Your task to perform on an android device: Clear the cart on amazon. Add bose quietcomfort 35 to the cart on amazon Image 0: 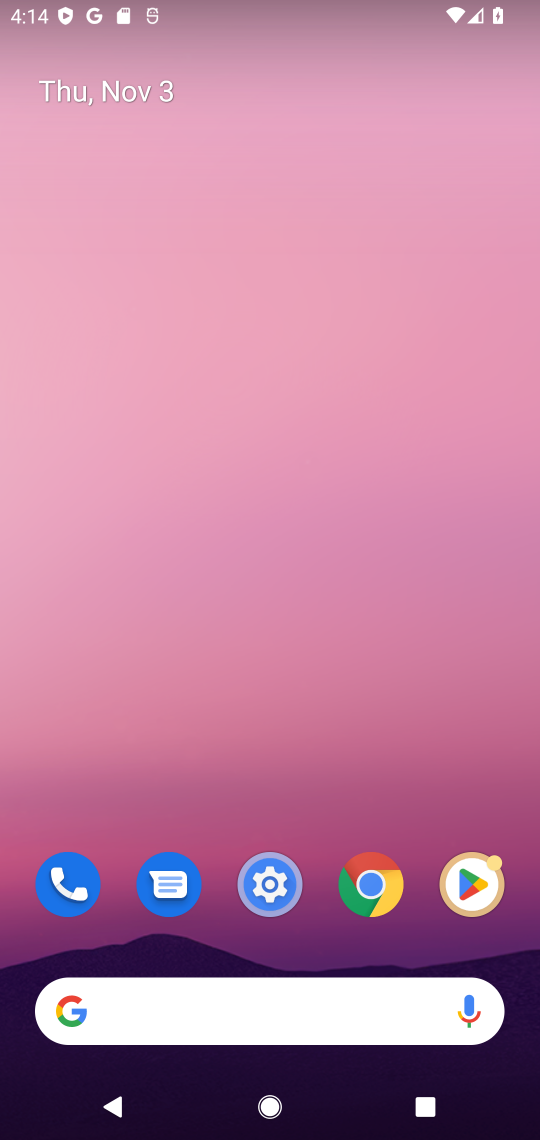
Step 0: press home button
Your task to perform on an android device: Clear the cart on amazon. Add bose quietcomfort 35 to the cart on amazon Image 1: 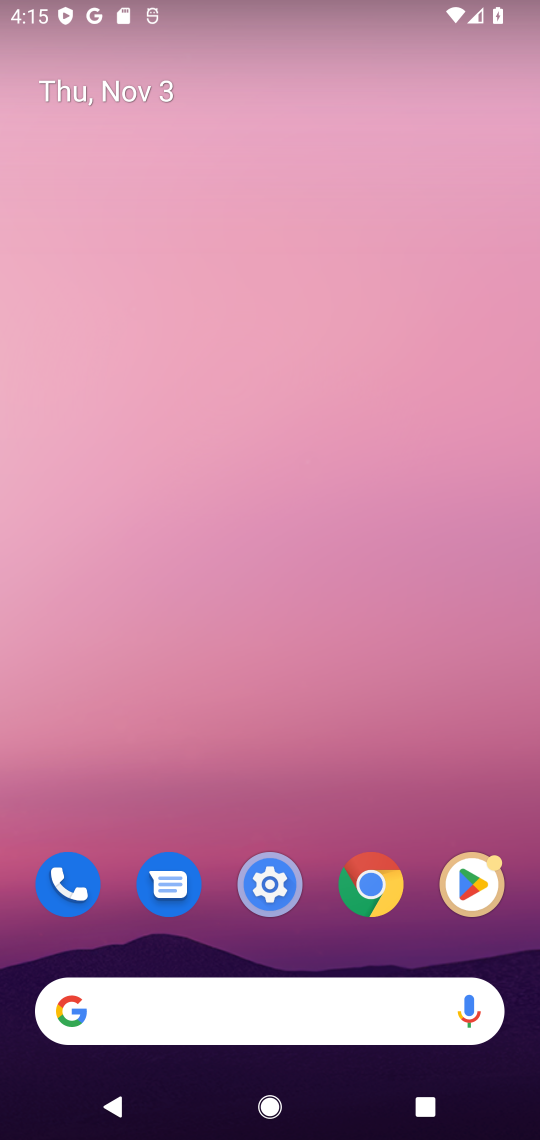
Step 1: click (148, 1008)
Your task to perform on an android device: Clear the cart on amazon. Add bose quietcomfort 35 to the cart on amazon Image 2: 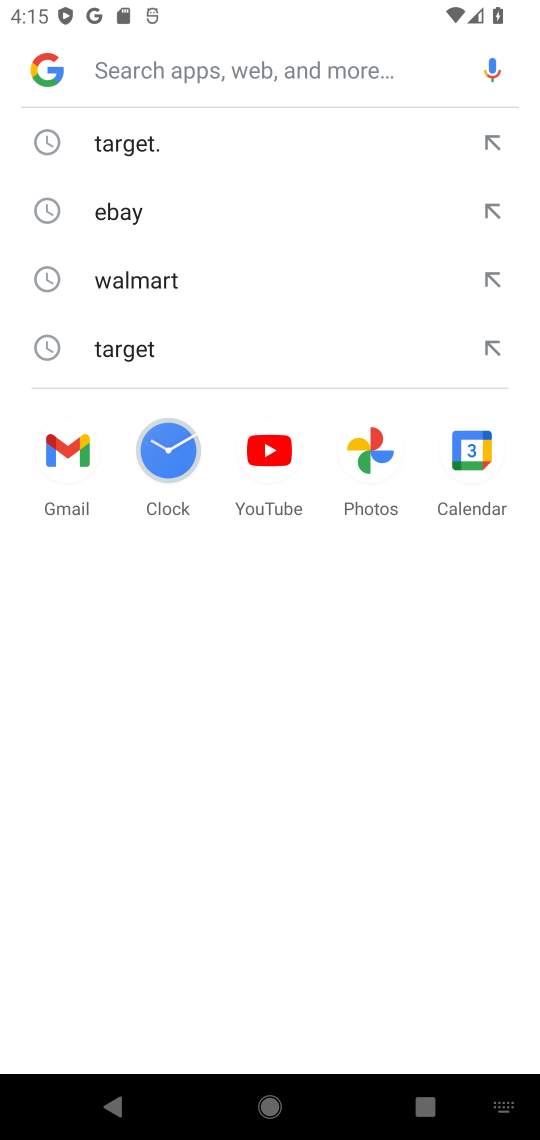
Step 2: type "amazon"
Your task to perform on an android device: Clear the cart on amazon. Add bose quietcomfort 35 to the cart on amazon Image 3: 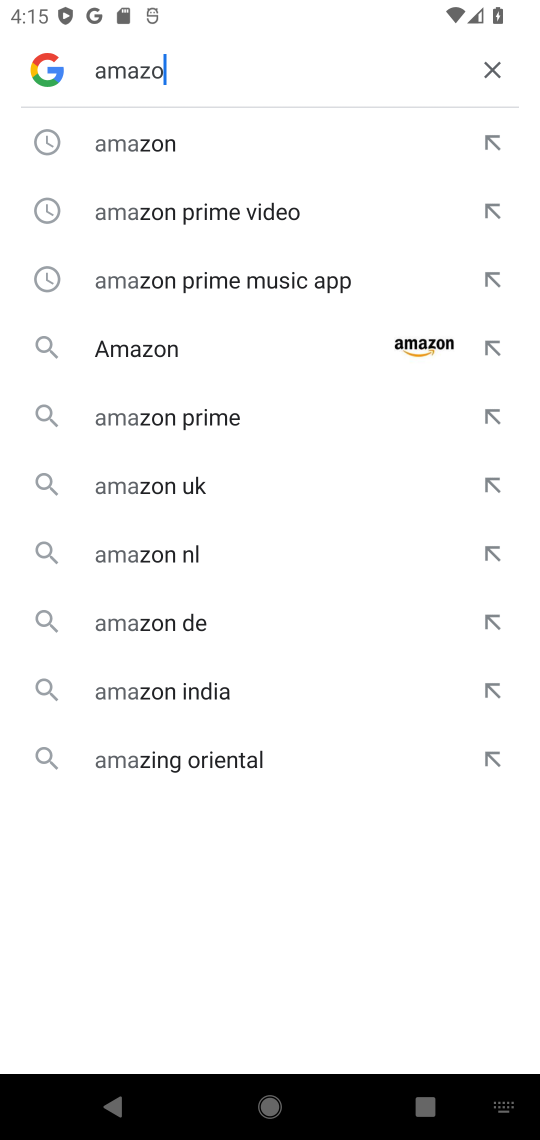
Step 3: press enter
Your task to perform on an android device: Clear the cart on amazon. Add bose quietcomfort 35 to the cart on amazon Image 4: 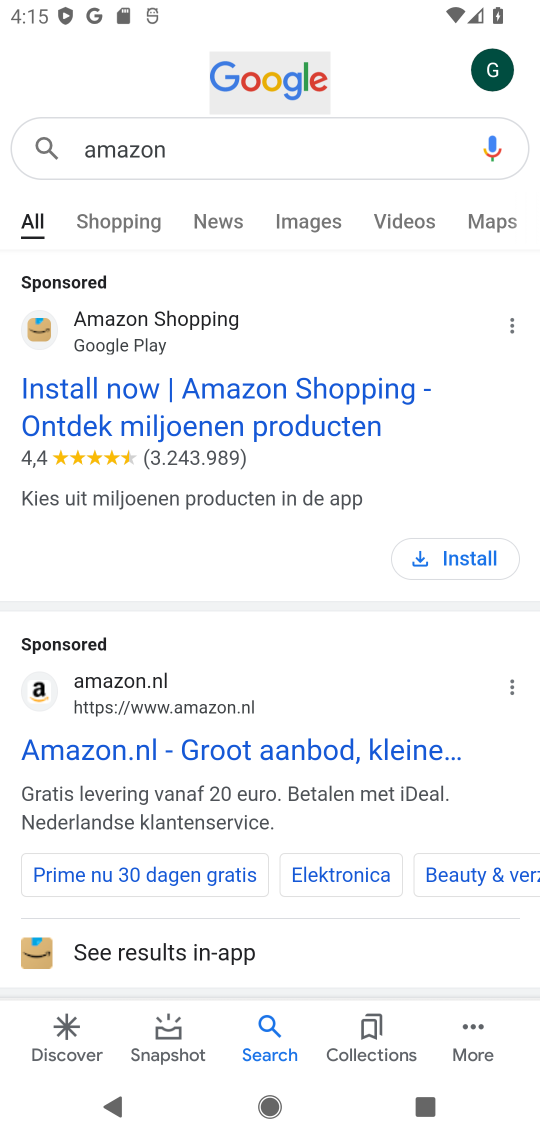
Step 4: drag from (362, 851) to (363, 357)
Your task to perform on an android device: Clear the cart on amazon. Add bose quietcomfort 35 to the cart on amazon Image 5: 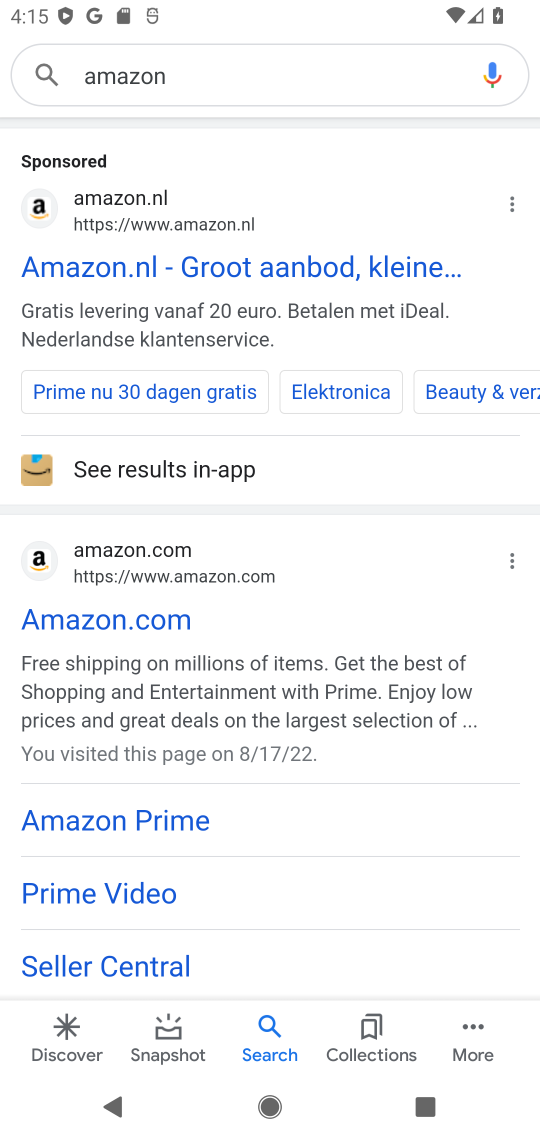
Step 5: click (148, 613)
Your task to perform on an android device: Clear the cart on amazon. Add bose quietcomfort 35 to the cart on amazon Image 6: 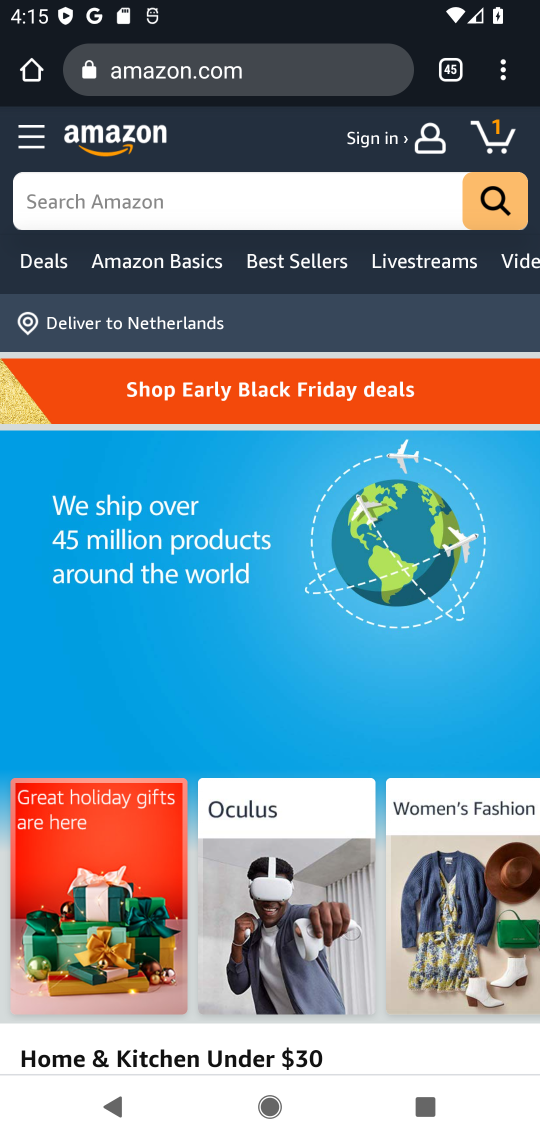
Step 6: click (495, 142)
Your task to perform on an android device: Clear the cart on amazon. Add bose quietcomfort 35 to the cart on amazon Image 7: 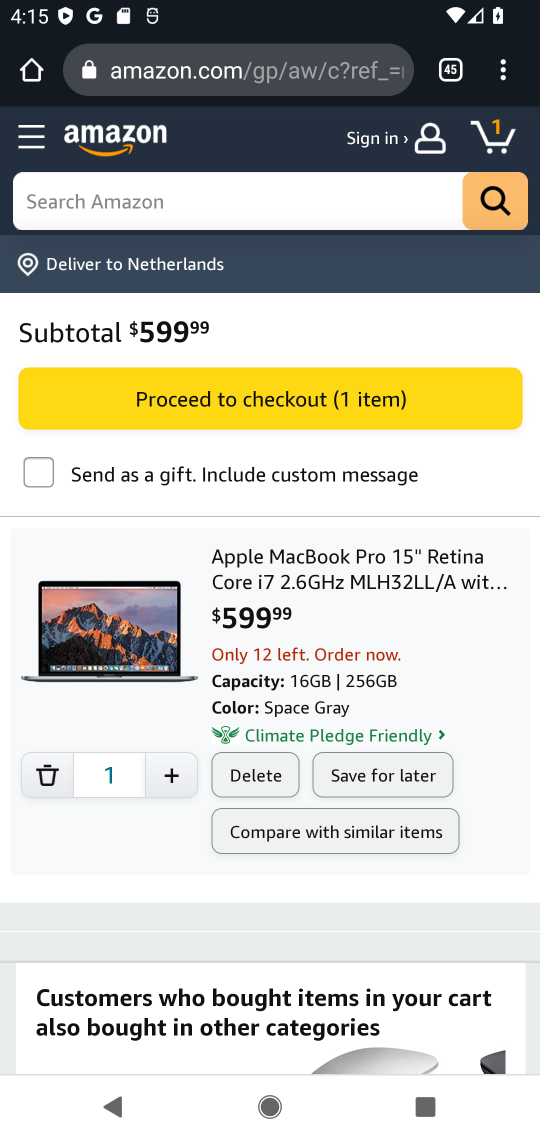
Step 7: click (46, 773)
Your task to perform on an android device: Clear the cart on amazon. Add bose quietcomfort 35 to the cart on amazon Image 8: 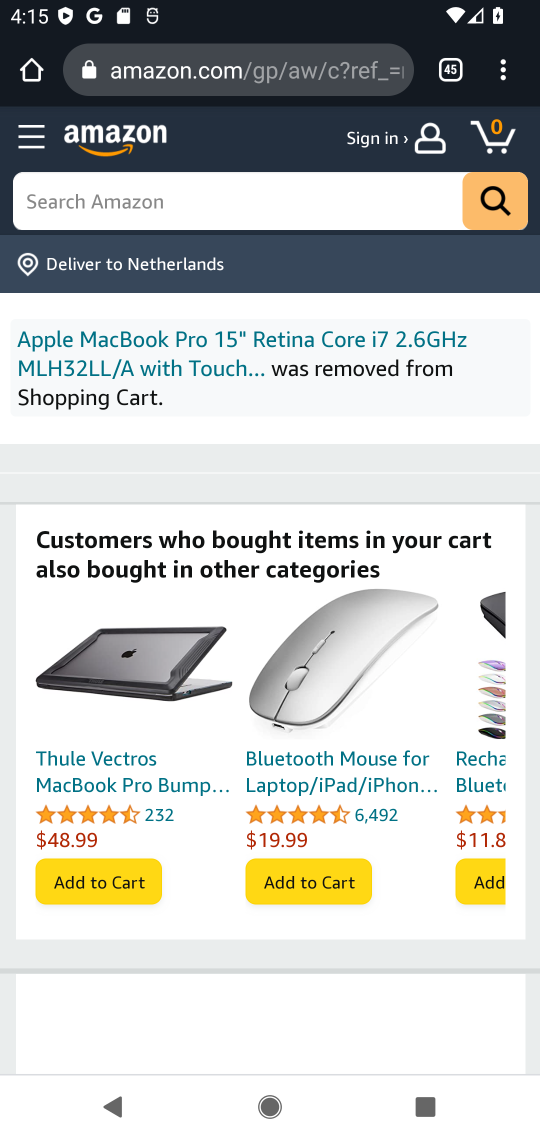
Step 8: click (93, 201)
Your task to perform on an android device: Clear the cart on amazon. Add bose quietcomfort 35 to the cart on amazon Image 9: 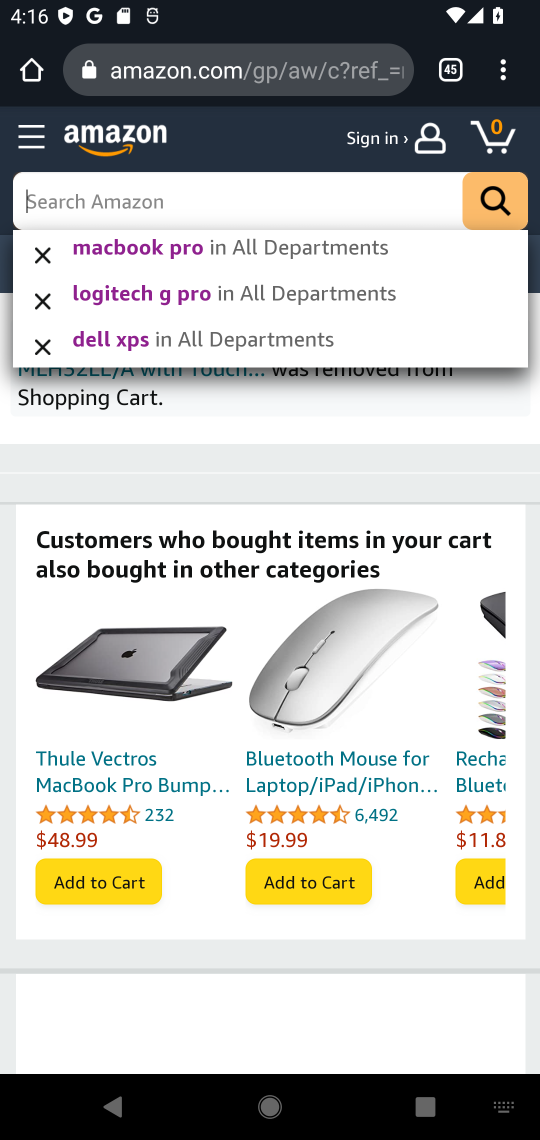
Step 9: type "bose quietcomfort 35"
Your task to perform on an android device: Clear the cart on amazon. Add bose quietcomfort 35 to the cart on amazon Image 10: 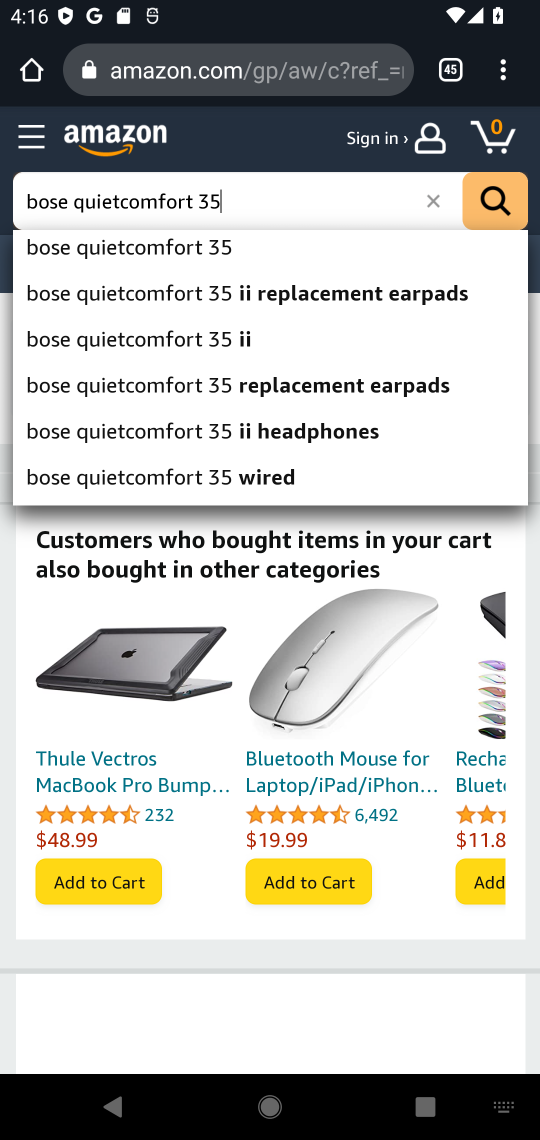
Step 10: click (499, 197)
Your task to perform on an android device: Clear the cart on amazon. Add bose quietcomfort 35 to the cart on amazon Image 11: 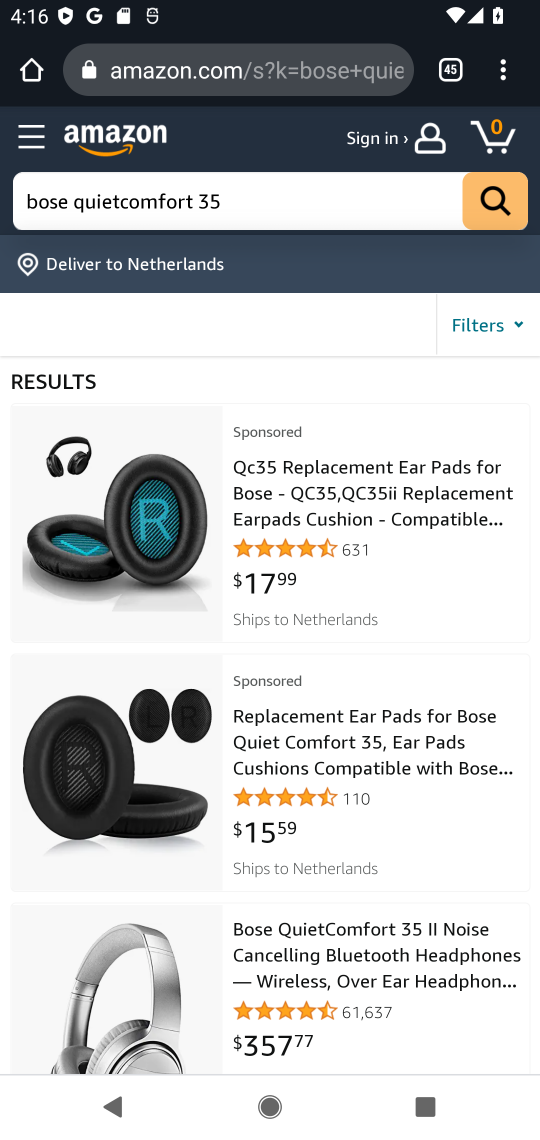
Step 11: click (309, 497)
Your task to perform on an android device: Clear the cart on amazon. Add bose quietcomfort 35 to the cart on amazon Image 12: 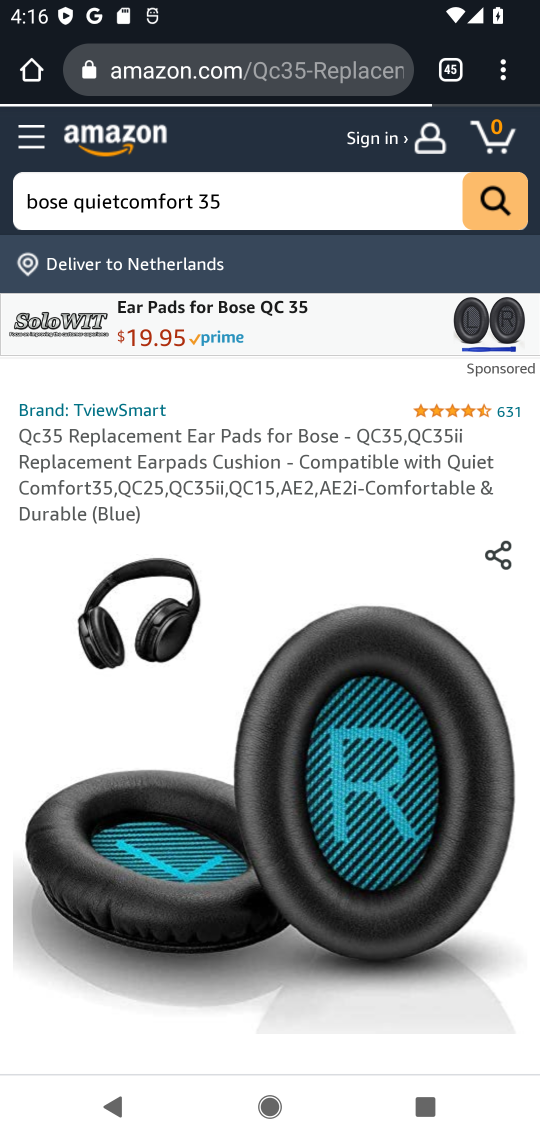
Step 12: drag from (307, 864) to (339, 406)
Your task to perform on an android device: Clear the cart on amazon. Add bose quietcomfort 35 to the cart on amazon Image 13: 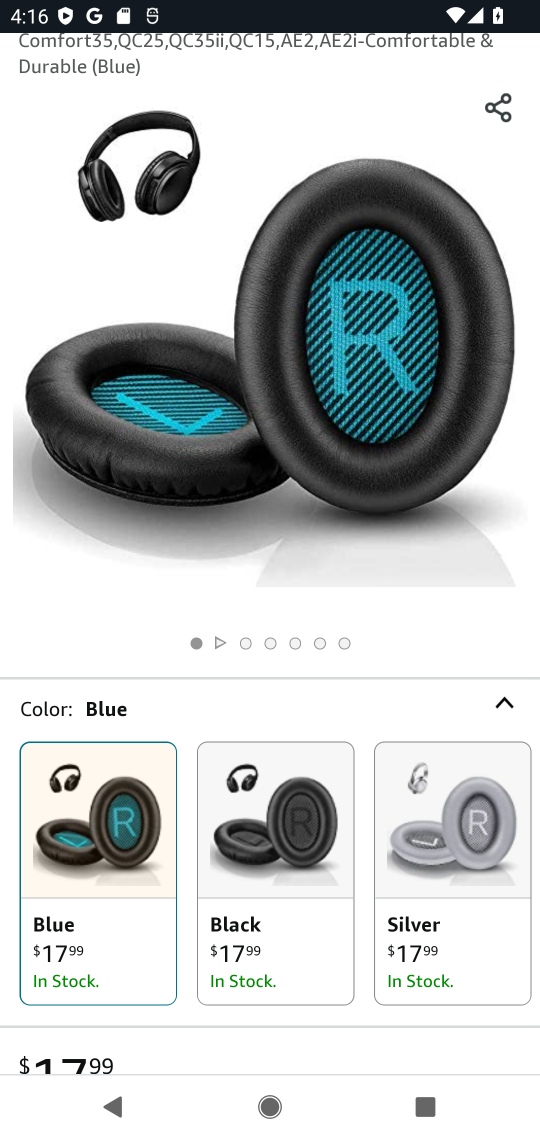
Step 13: drag from (304, 905) to (346, 313)
Your task to perform on an android device: Clear the cart on amazon. Add bose quietcomfort 35 to the cart on amazon Image 14: 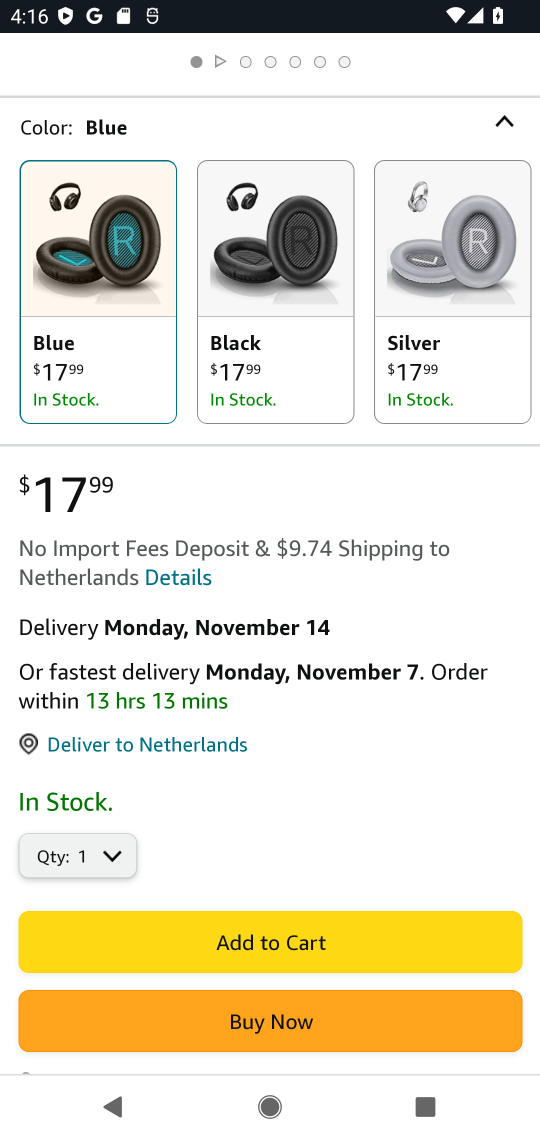
Step 14: drag from (390, 804) to (447, 400)
Your task to perform on an android device: Clear the cart on amazon. Add bose quietcomfort 35 to the cart on amazon Image 15: 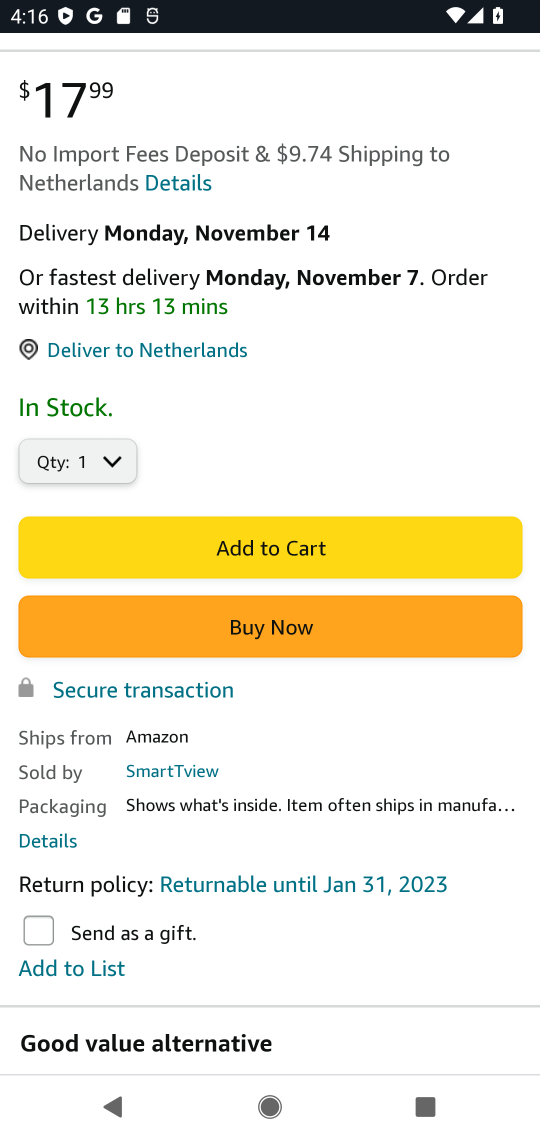
Step 15: click (255, 551)
Your task to perform on an android device: Clear the cart on amazon. Add bose quietcomfort 35 to the cart on amazon Image 16: 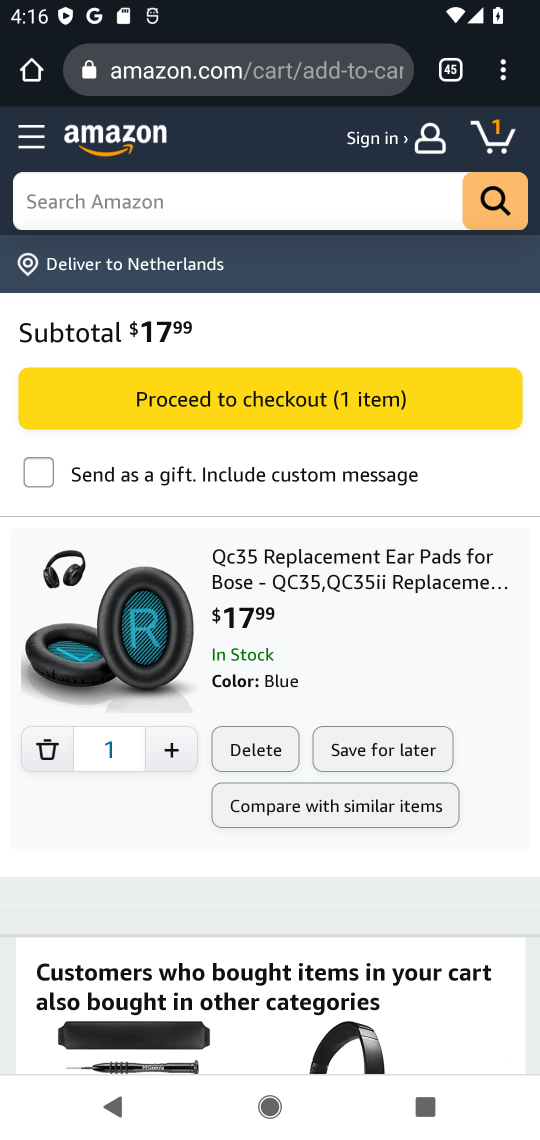
Step 16: task complete